Your task to perform on an android device: allow cookies in the chrome app Image 0: 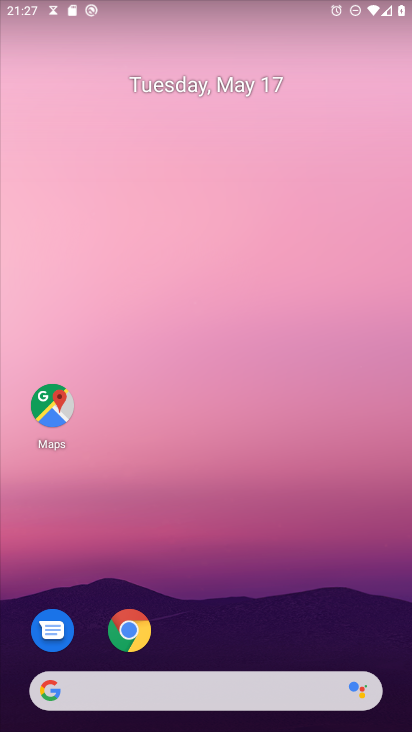
Step 0: click (131, 642)
Your task to perform on an android device: allow cookies in the chrome app Image 1: 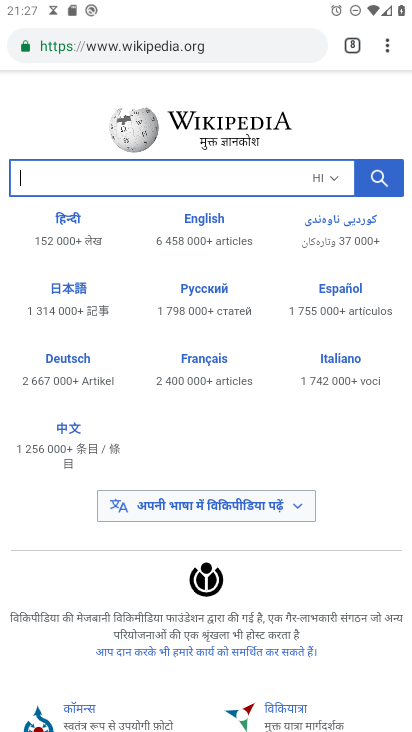
Step 1: click (389, 45)
Your task to perform on an android device: allow cookies in the chrome app Image 2: 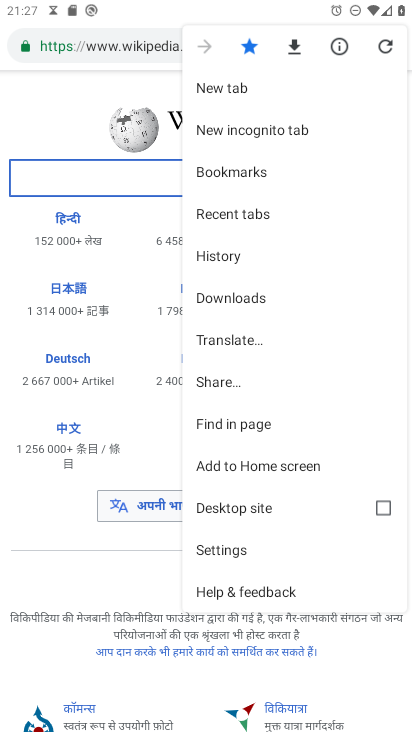
Step 2: click (228, 549)
Your task to perform on an android device: allow cookies in the chrome app Image 3: 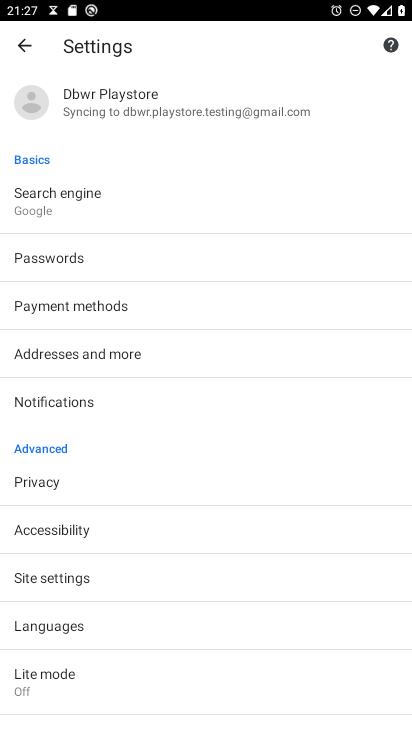
Step 3: click (61, 582)
Your task to perform on an android device: allow cookies in the chrome app Image 4: 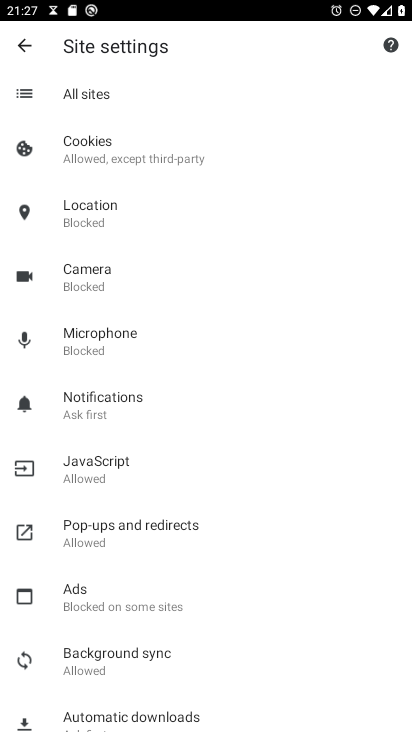
Step 4: click (132, 152)
Your task to perform on an android device: allow cookies in the chrome app Image 5: 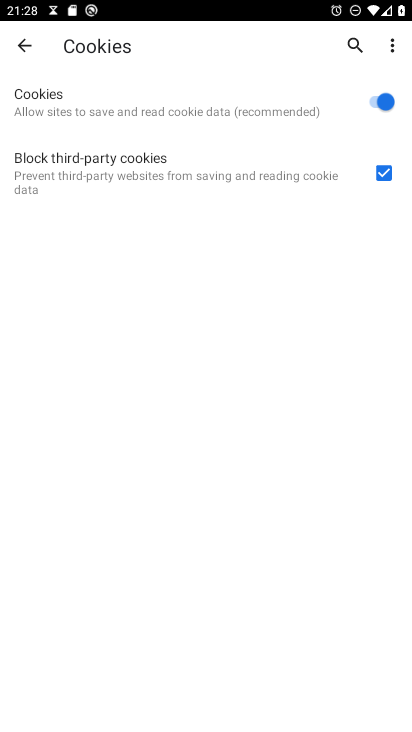
Step 5: task complete